Your task to perform on an android device: turn off data saver in the chrome app Image 0: 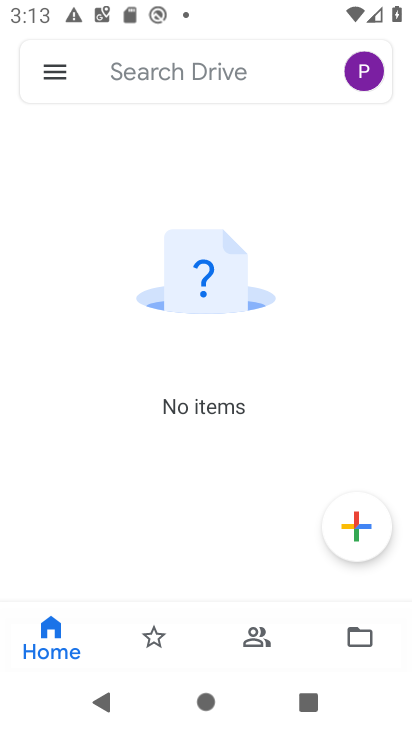
Step 0: press home button
Your task to perform on an android device: turn off data saver in the chrome app Image 1: 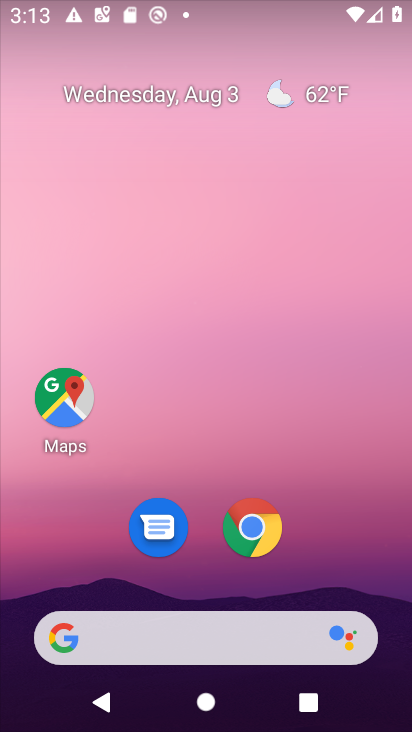
Step 1: drag from (353, 515) to (256, 138)
Your task to perform on an android device: turn off data saver in the chrome app Image 2: 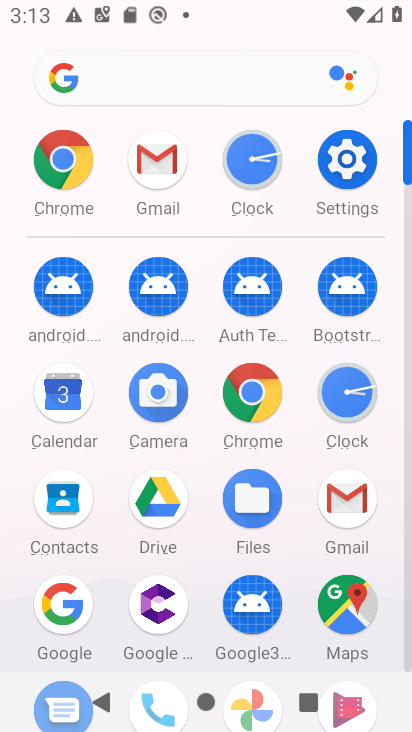
Step 2: click (251, 390)
Your task to perform on an android device: turn off data saver in the chrome app Image 3: 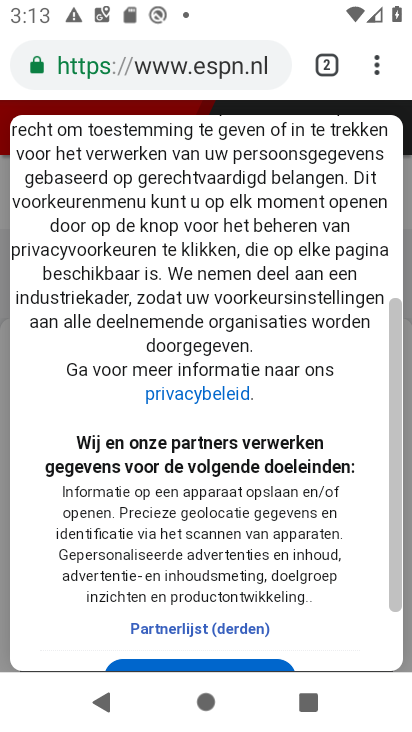
Step 3: drag from (384, 58) to (141, 586)
Your task to perform on an android device: turn off data saver in the chrome app Image 4: 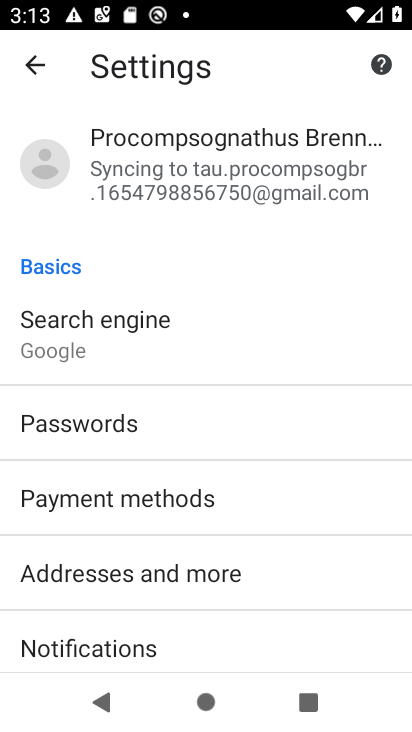
Step 4: drag from (282, 653) to (276, 163)
Your task to perform on an android device: turn off data saver in the chrome app Image 5: 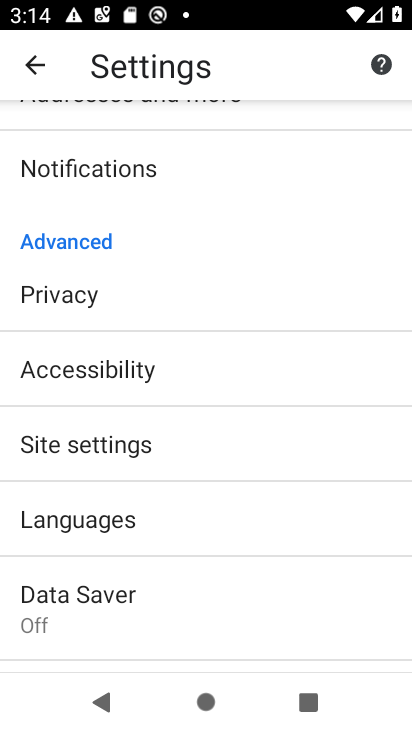
Step 5: click (212, 600)
Your task to perform on an android device: turn off data saver in the chrome app Image 6: 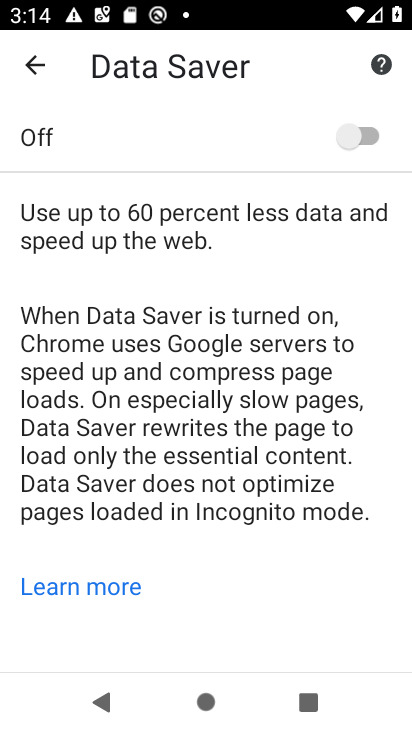
Step 6: task complete